Your task to perform on an android device: Search for "usb-a" on ebay.com, select the first entry, and add it to the cart. Image 0: 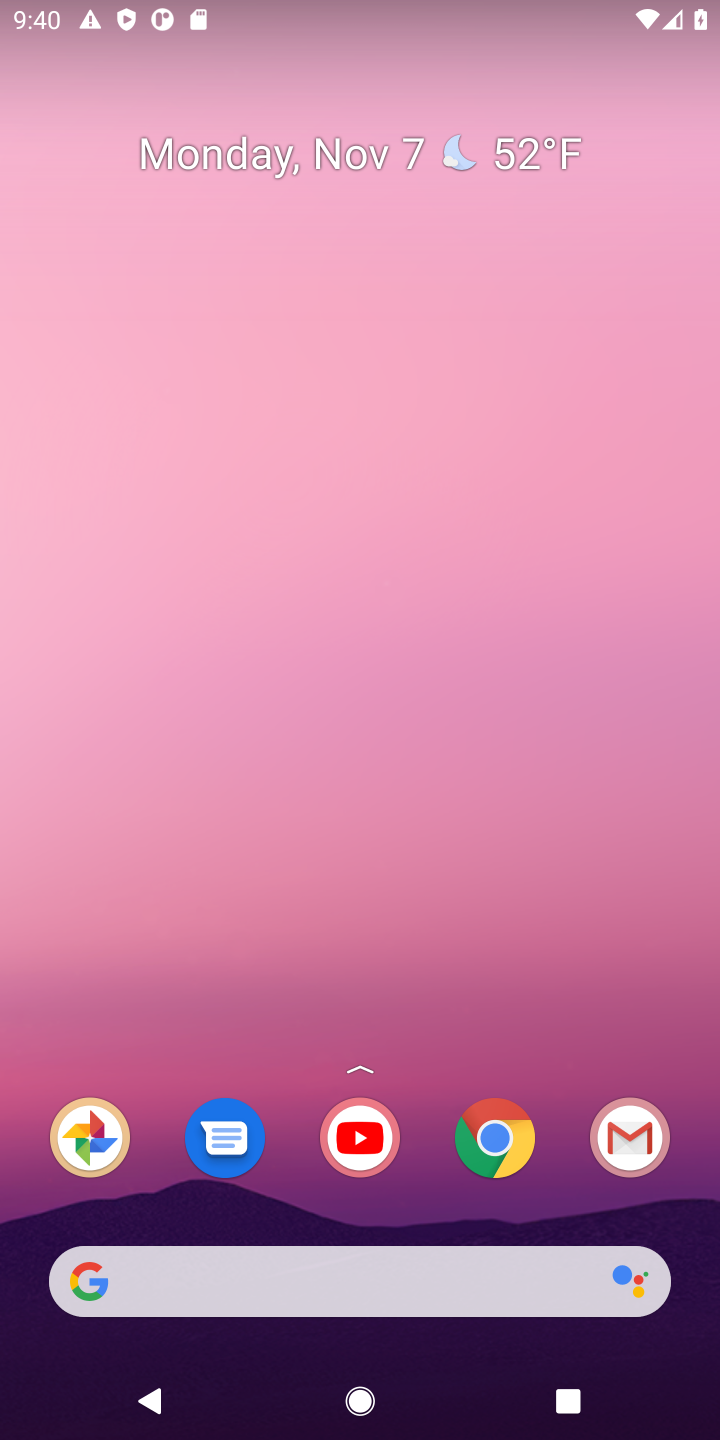
Step 0: drag from (428, 1216) to (462, 53)
Your task to perform on an android device: Search for "usb-a" on ebay.com, select the first entry, and add it to the cart. Image 1: 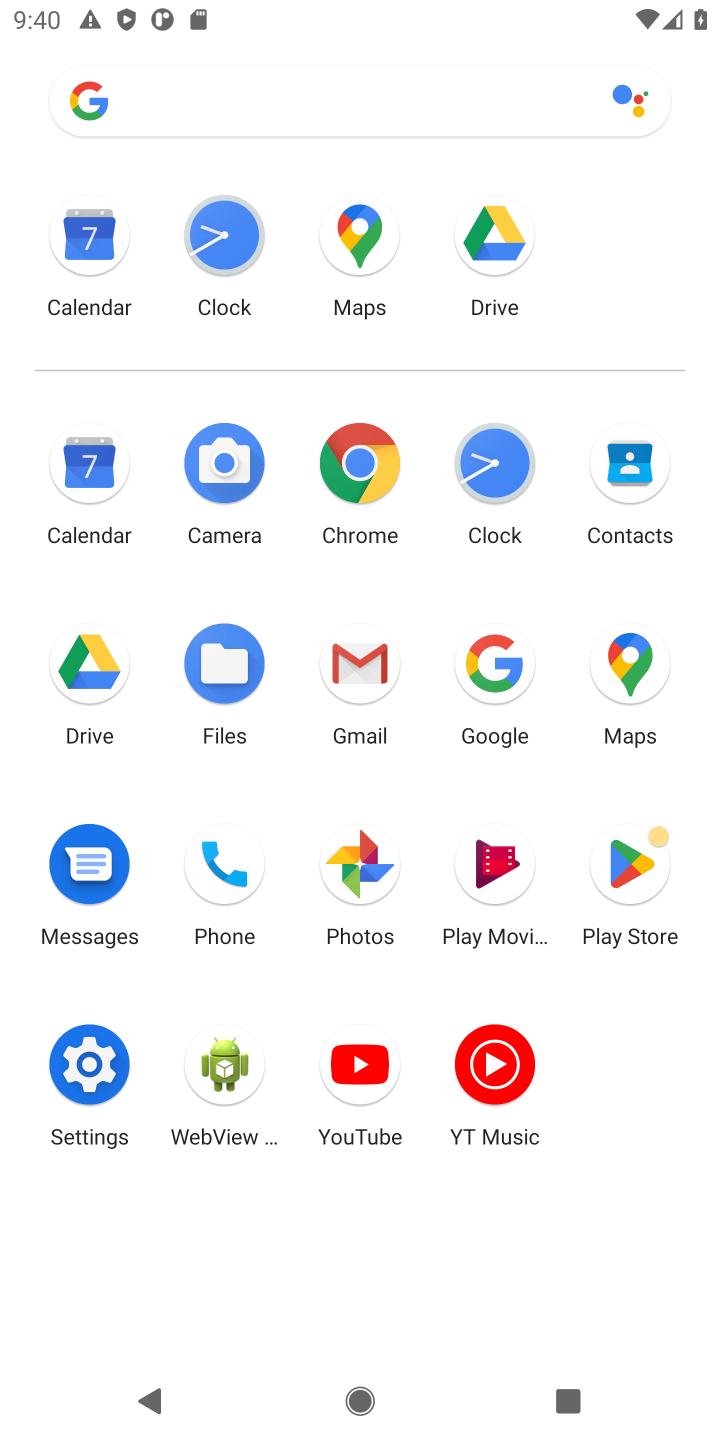
Step 1: click (360, 460)
Your task to perform on an android device: Search for "usb-a" on ebay.com, select the first entry, and add it to the cart. Image 2: 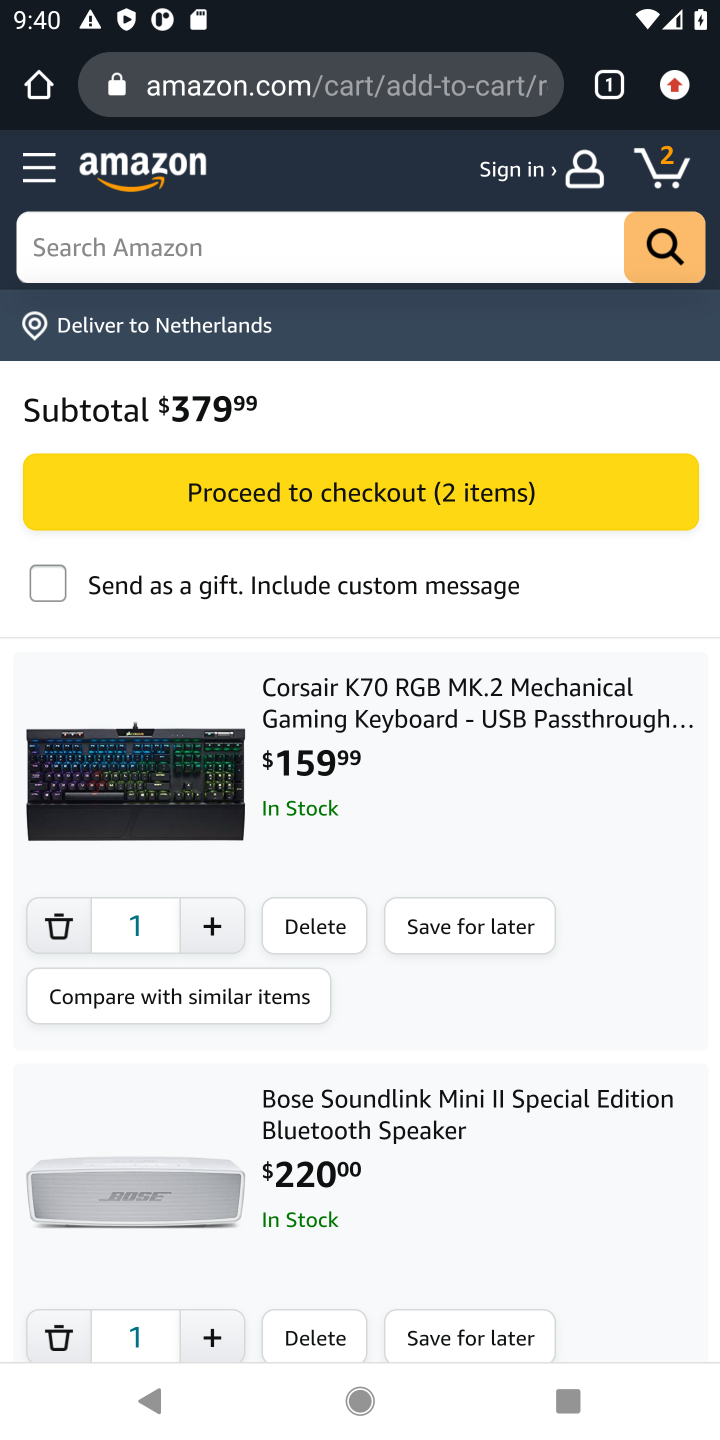
Step 2: click (328, 132)
Your task to perform on an android device: Search for "usb-a" on ebay.com, select the first entry, and add it to the cart. Image 3: 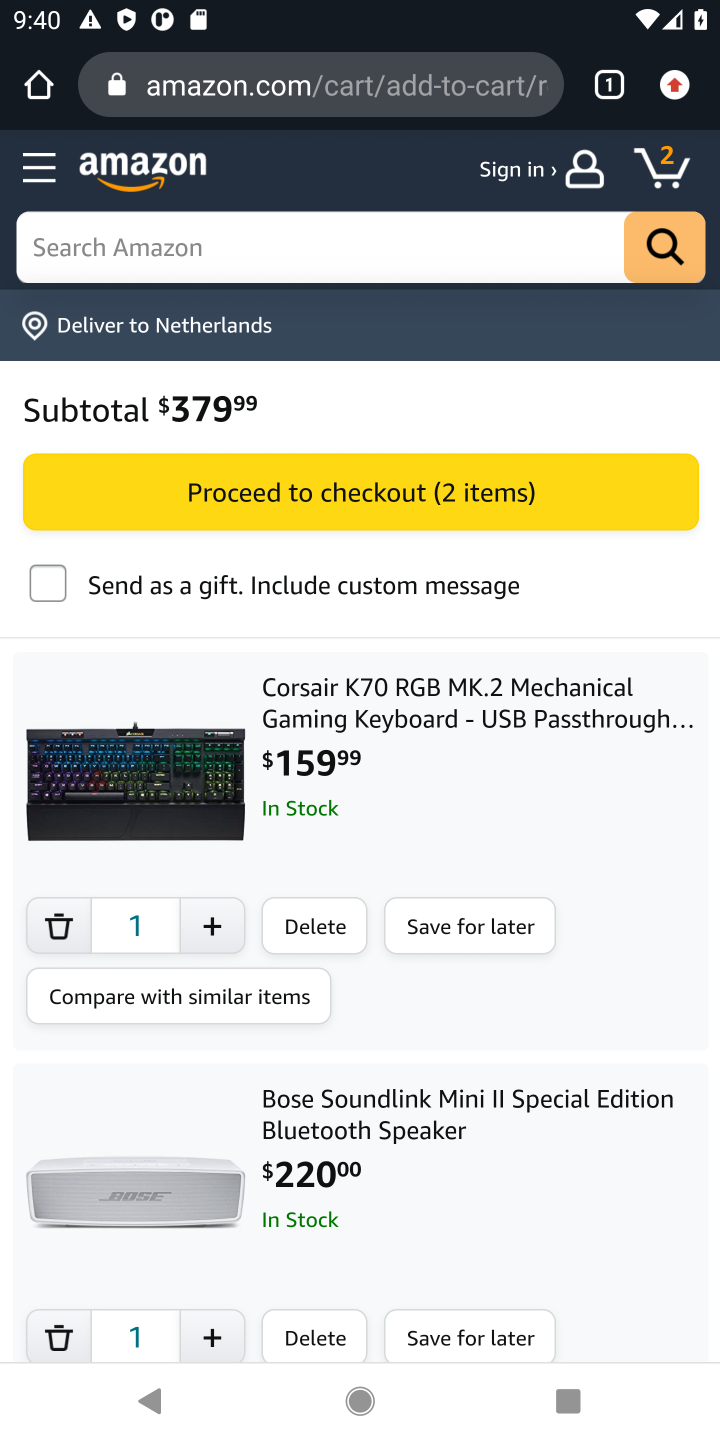
Step 3: click (335, 108)
Your task to perform on an android device: Search for "usb-a" on ebay.com, select the first entry, and add it to the cart. Image 4: 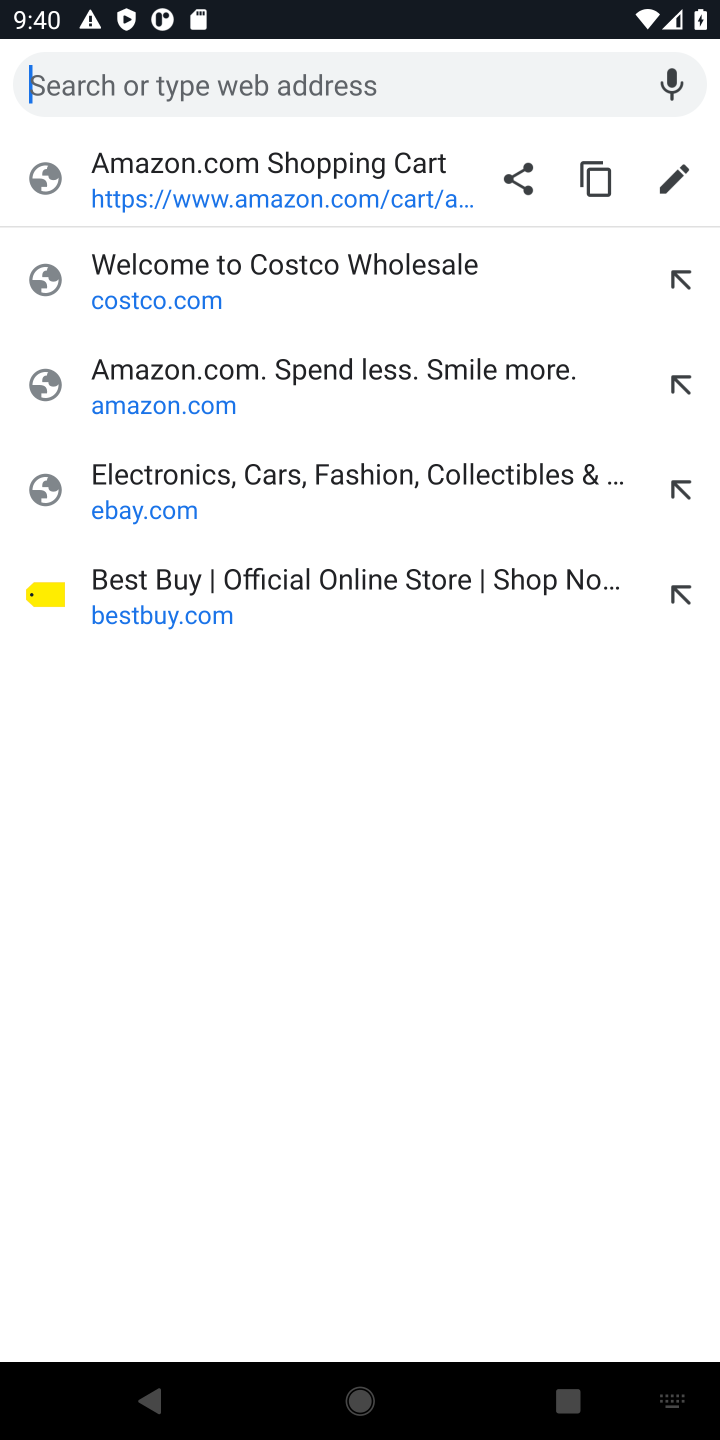
Step 4: type "ebay.com"
Your task to perform on an android device: Search for "usb-a" on ebay.com, select the first entry, and add it to the cart. Image 5: 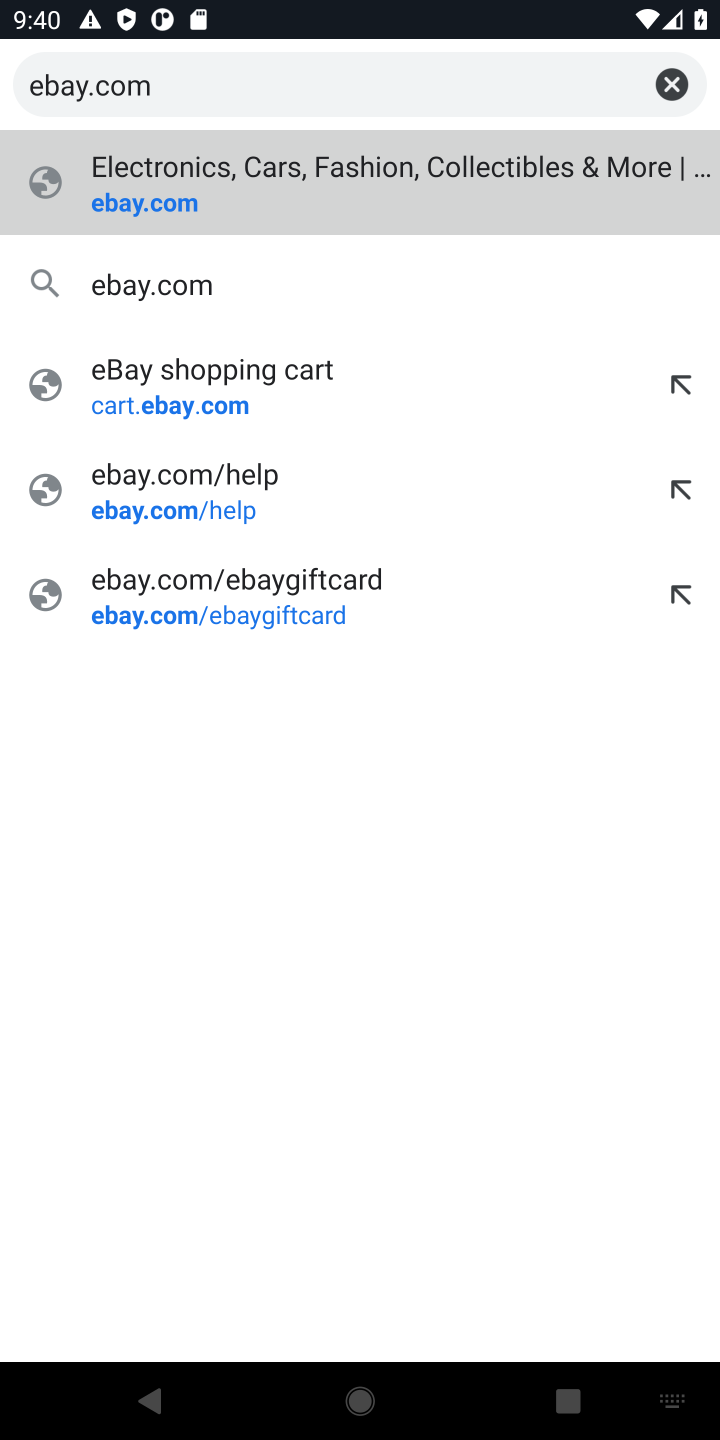
Step 5: press enter
Your task to perform on an android device: Search for "usb-a" on ebay.com, select the first entry, and add it to the cart. Image 6: 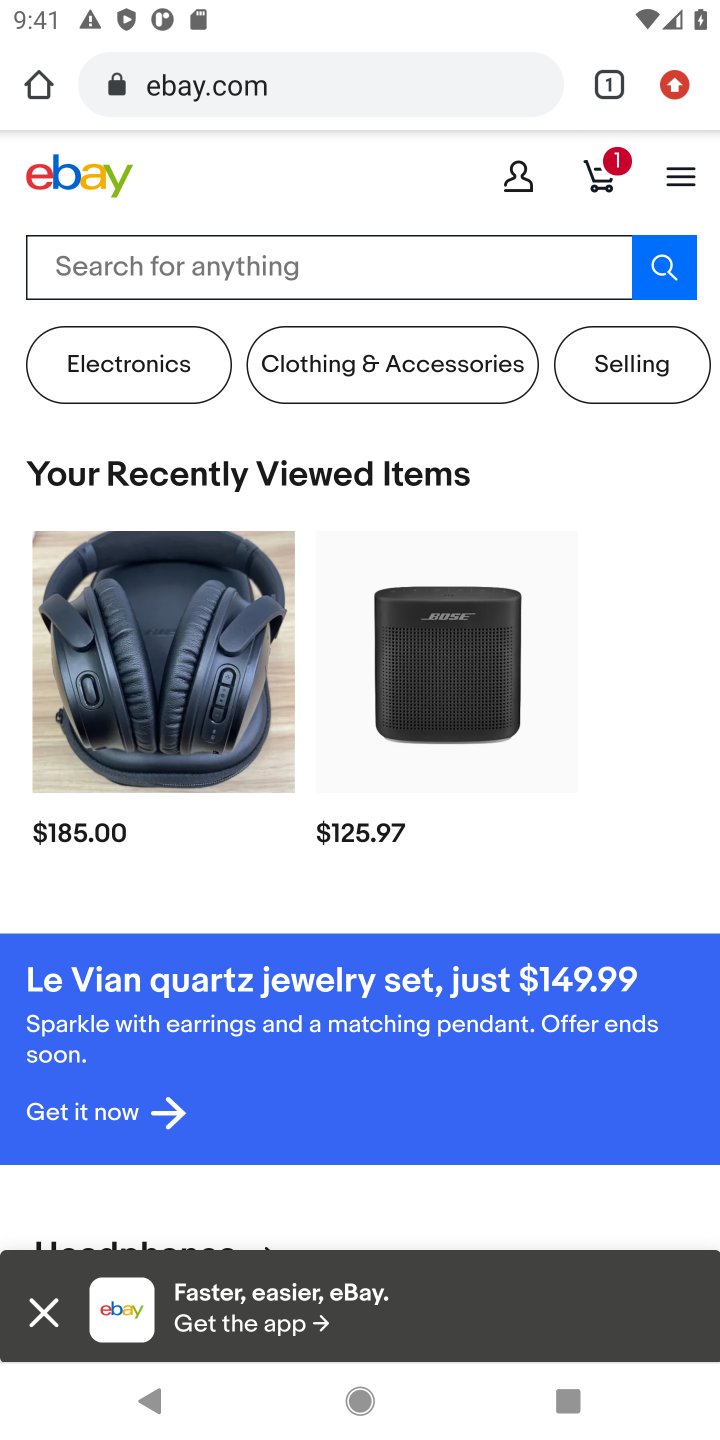
Step 6: click (486, 308)
Your task to perform on an android device: Search for "usb-a" on ebay.com, select the first entry, and add it to the cart. Image 7: 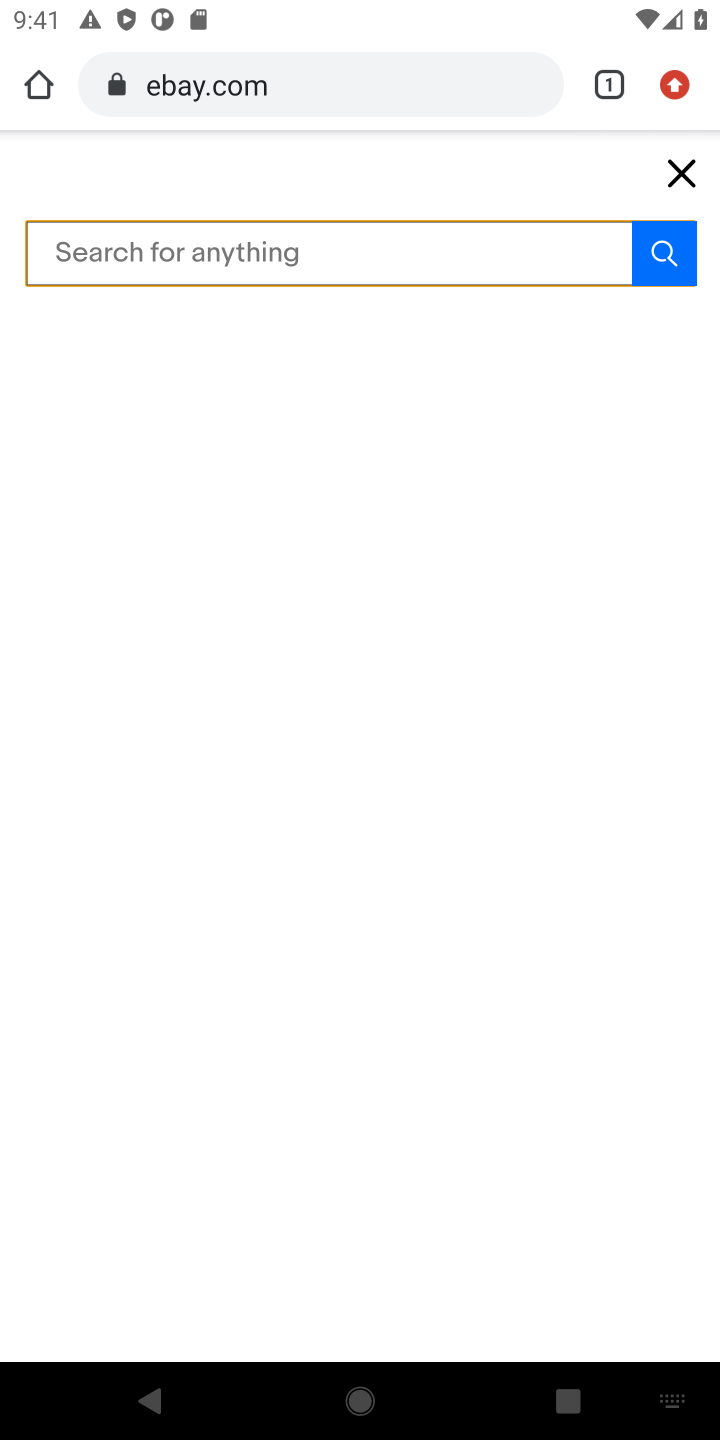
Step 7: type "usb-a"
Your task to perform on an android device: Search for "usb-a" on ebay.com, select the first entry, and add it to the cart. Image 8: 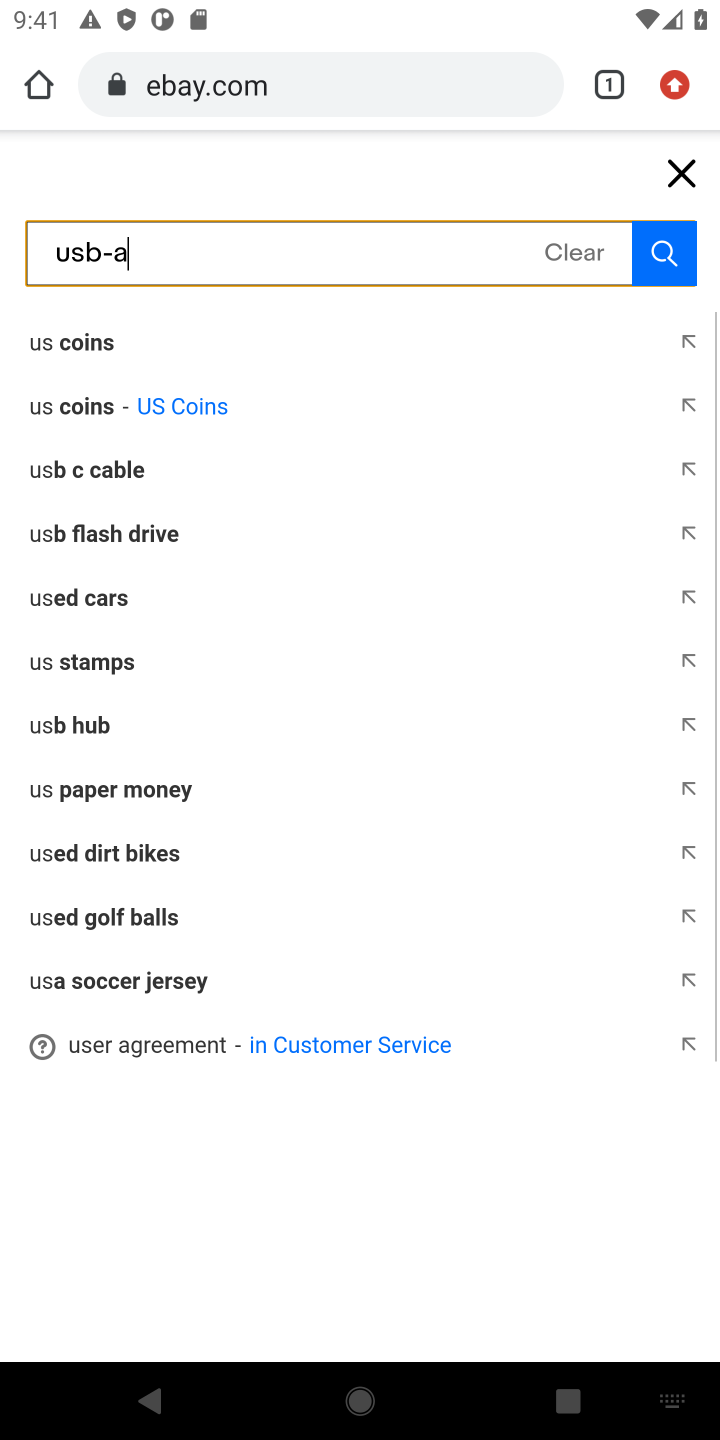
Step 8: press enter
Your task to perform on an android device: Search for "usb-a" on ebay.com, select the first entry, and add it to the cart. Image 9: 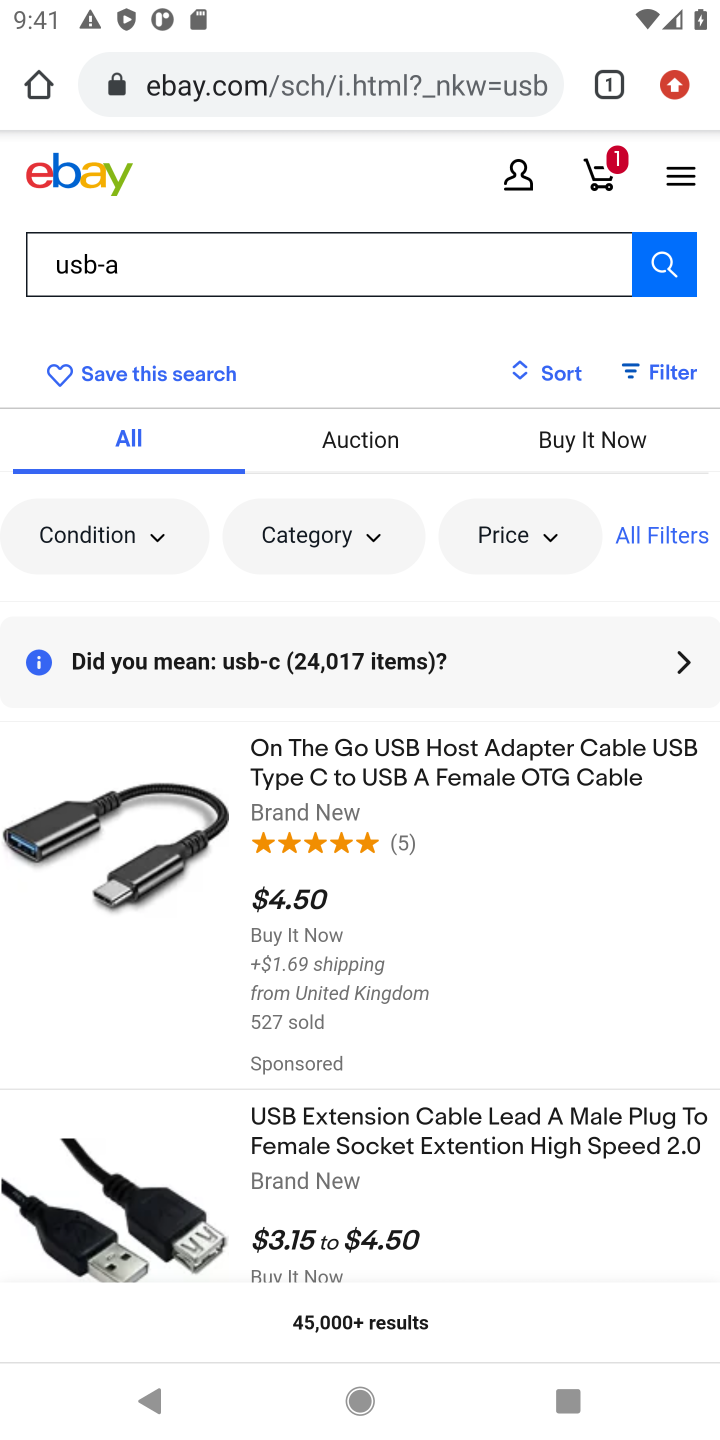
Step 9: click (291, 773)
Your task to perform on an android device: Search for "usb-a" on ebay.com, select the first entry, and add it to the cart. Image 10: 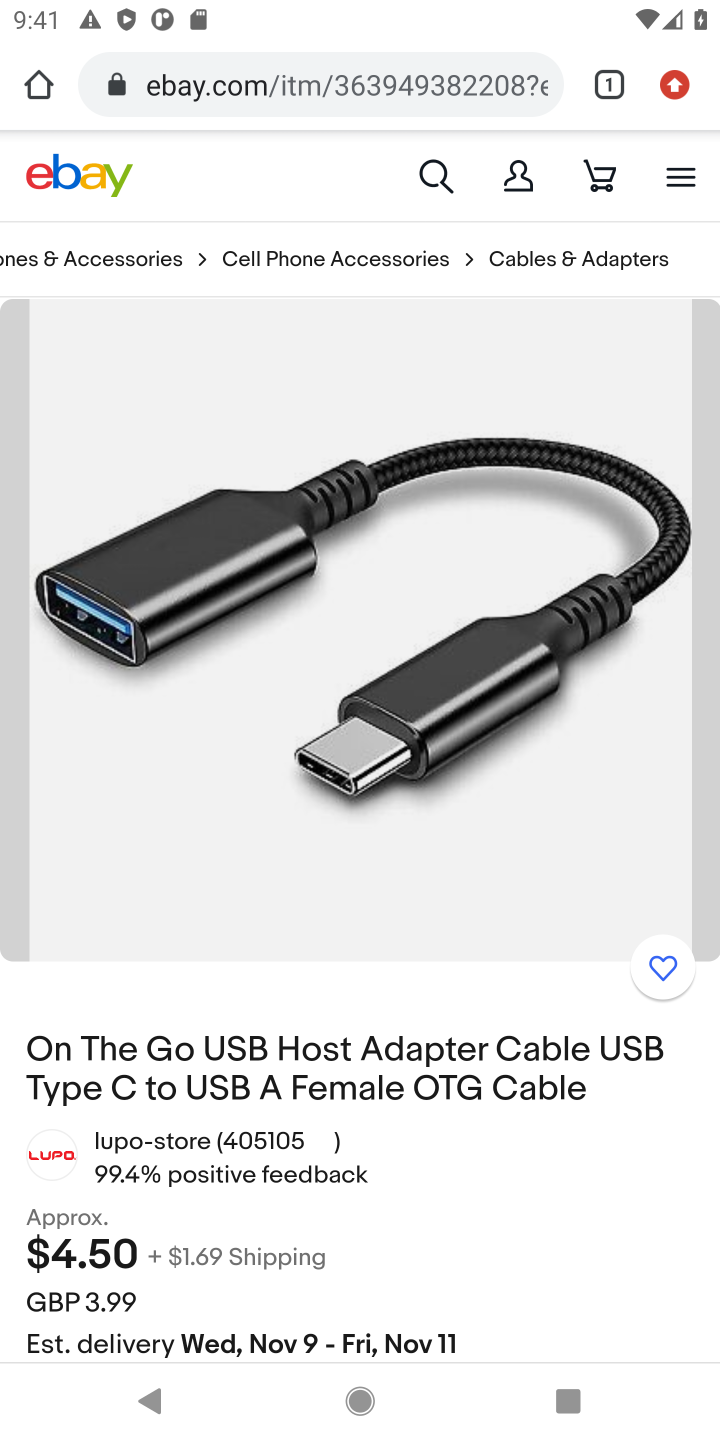
Step 10: drag from (431, 1144) to (503, 304)
Your task to perform on an android device: Search for "usb-a" on ebay.com, select the first entry, and add it to the cart. Image 11: 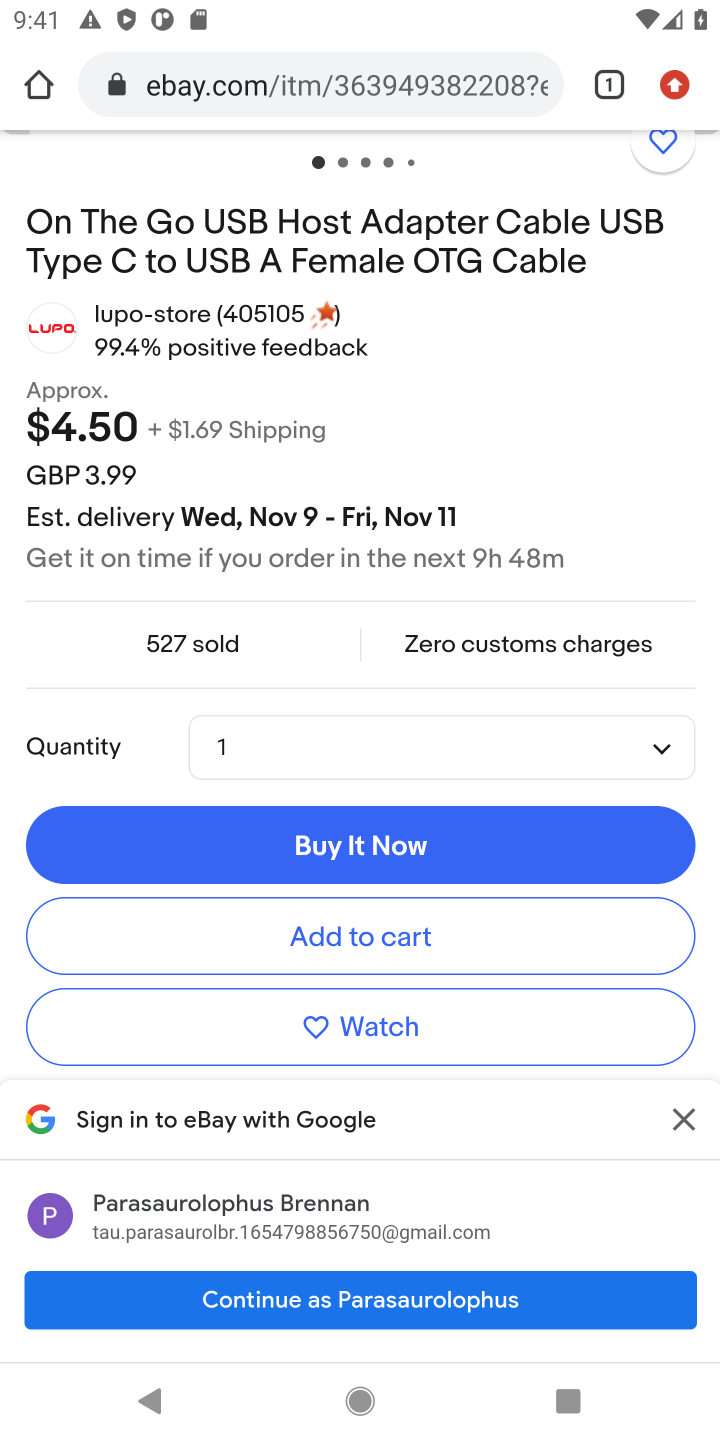
Step 11: click (453, 949)
Your task to perform on an android device: Search for "usb-a" on ebay.com, select the first entry, and add it to the cart. Image 12: 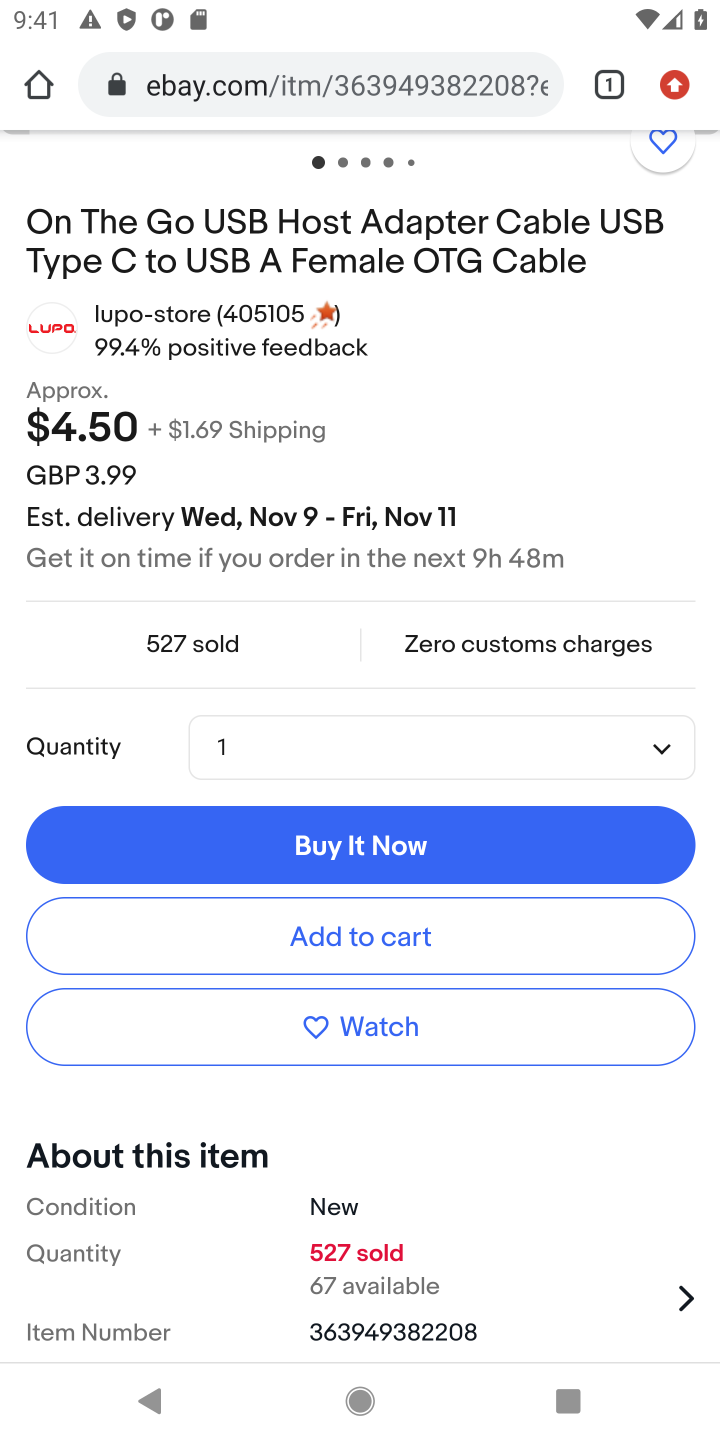
Step 12: click (323, 947)
Your task to perform on an android device: Search for "usb-a" on ebay.com, select the first entry, and add it to the cart. Image 13: 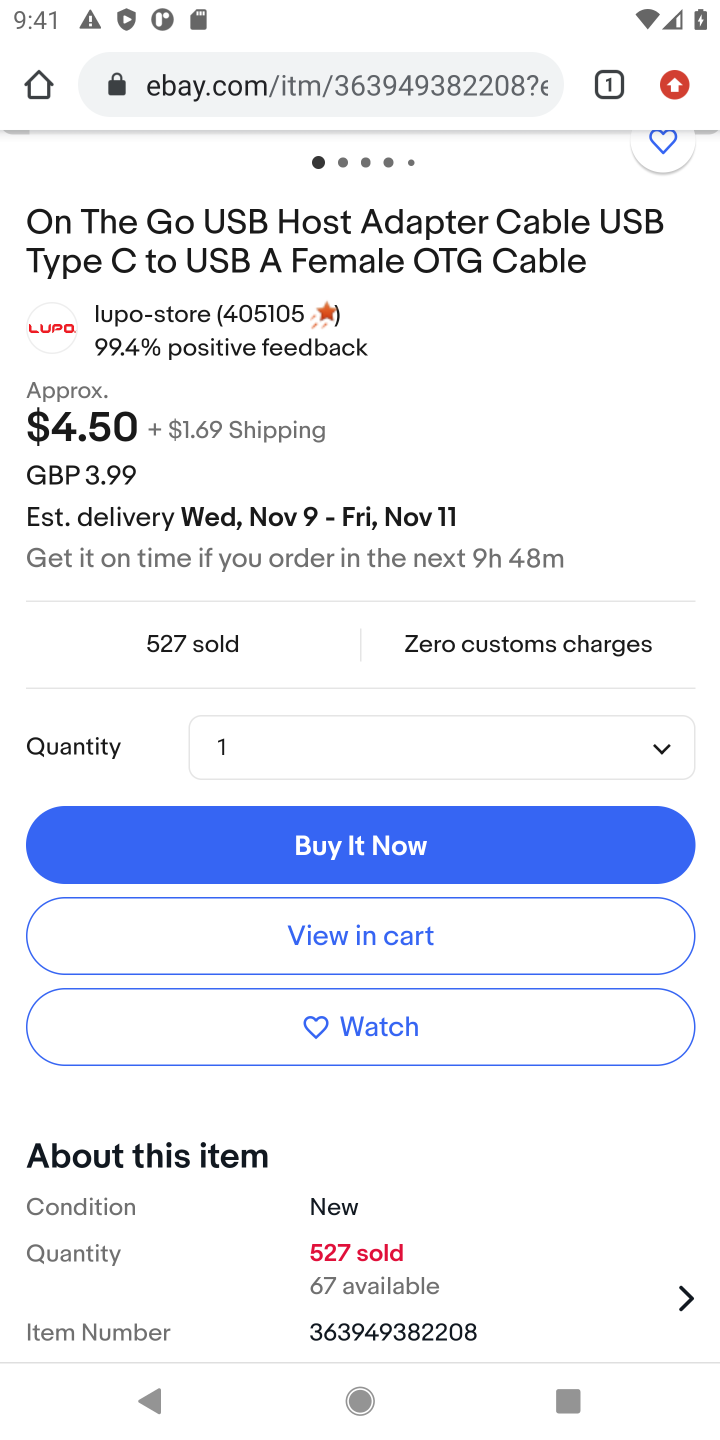
Step 13: task complete